Your task to perform on an android device: Go to location settings Image 0: 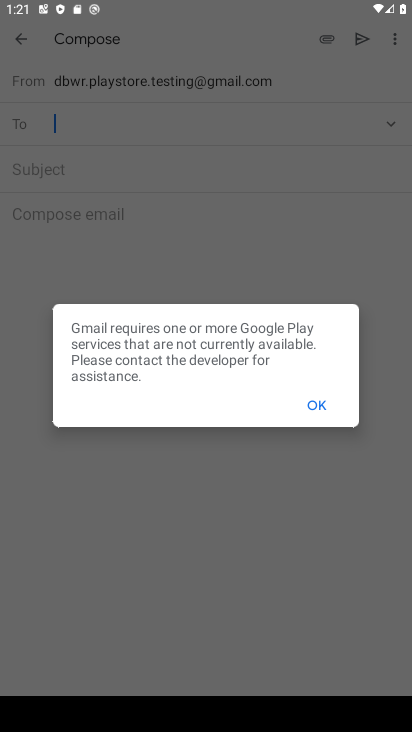
Step 0: click (311, 411)
Your task to perform on an android device: Go to location settings Image 1: 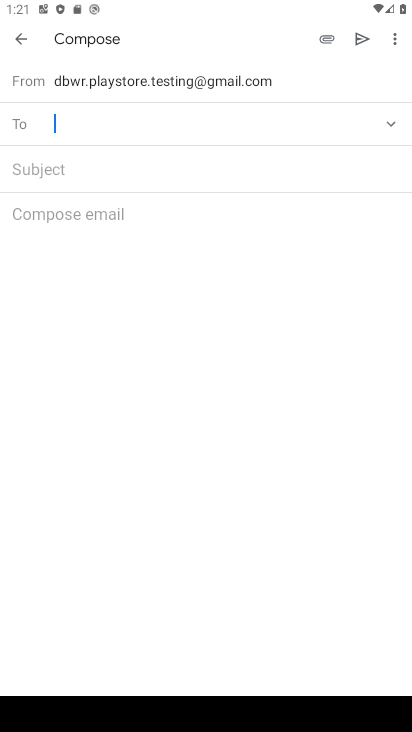
Step 1: press home button
Your task to perform on an android device: Go to location settings Image 2: 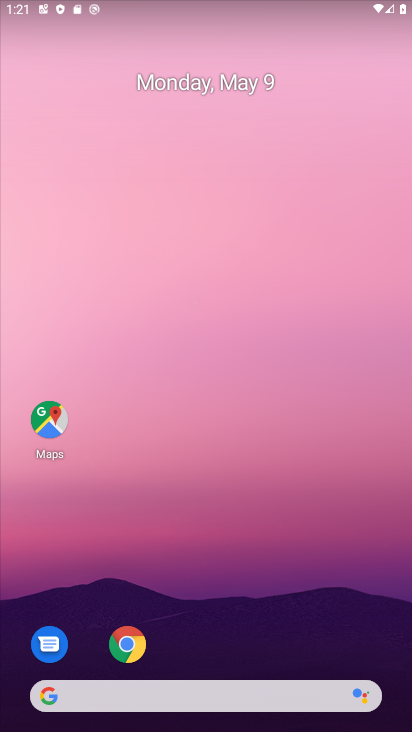
Step 2: drag from (265, 649) to (237, 236)
Your task to perform on an android device: Go to location settings Image 3: 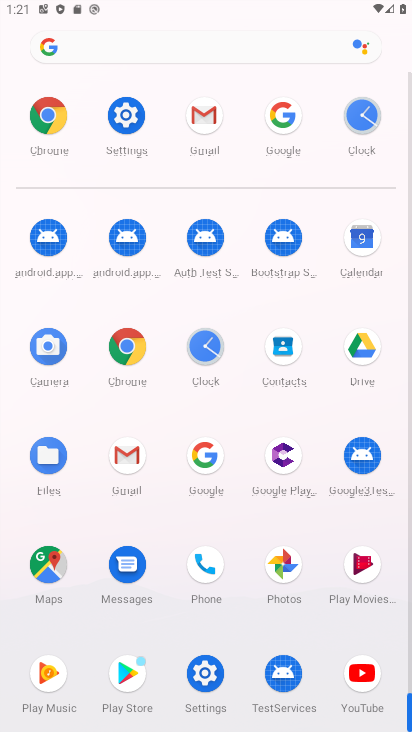
Step 3: click (122, 144)
Your task to perform on an android device: Go to location settings Image 4: 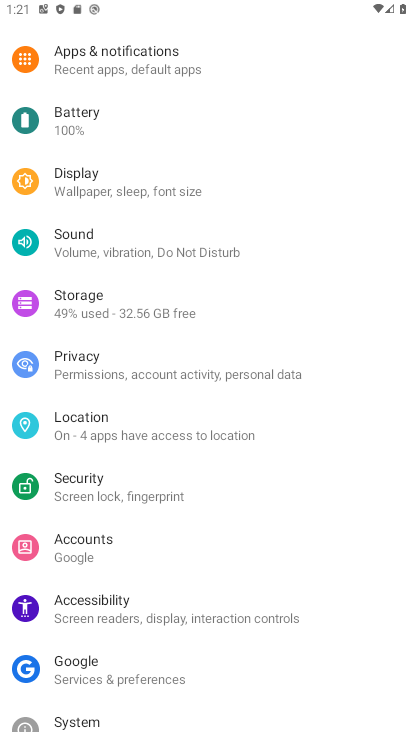
Step 4: click (76, 451)
Your task to perform on an android device: Go to location settings Image 5: 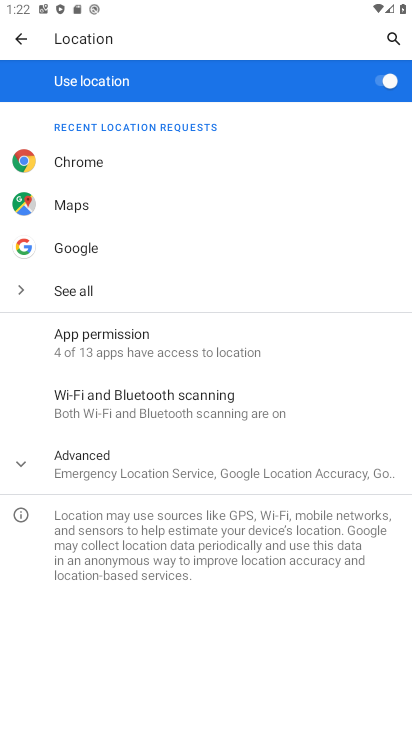
Step 5: task complete